Your task to perform on an android device: change notifications settings Image 0: 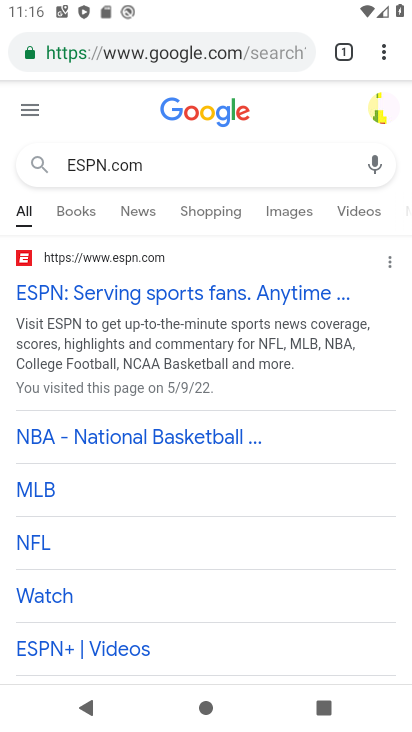
Step 0: press home button
Your task to perform on an android device: change notifications settings Image 1: 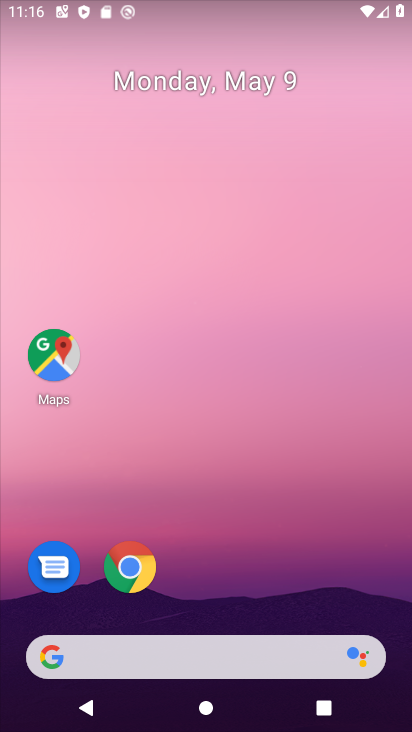
Step 1: drag from (255, 583) to (336, 114)
Your task to perform on an android device: change notifications settings Image 2: 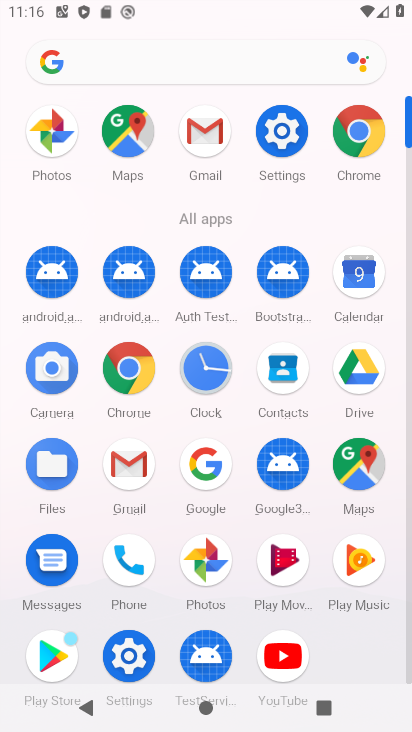
Step 2: click (284, 156)
Your task to perform on an android device: change notifications settings Image 3: 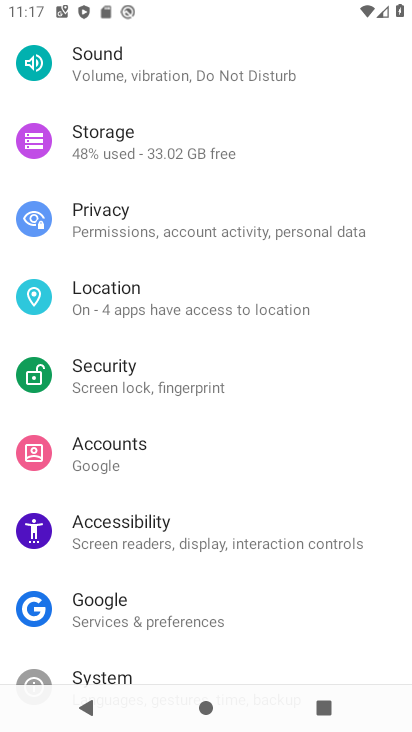
Step 3: drag from (207, 368) to (216, 691)
Your task to perform on an android device: change notifications settings Image 4: 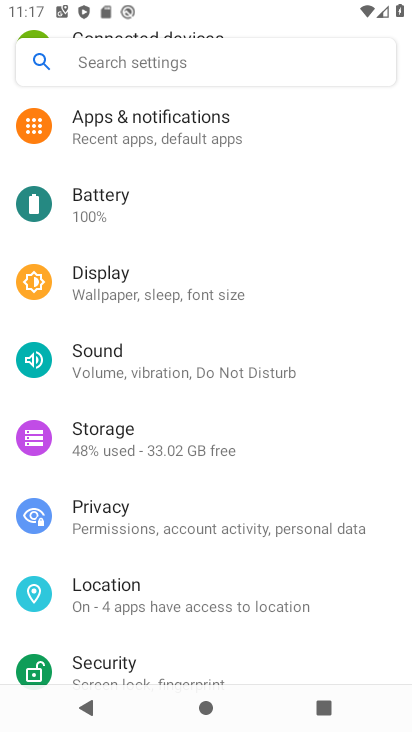
Step 4: drag from (217, 223) to (213, 411)
Your task to perform on an android device: change notifications settings Image 5: 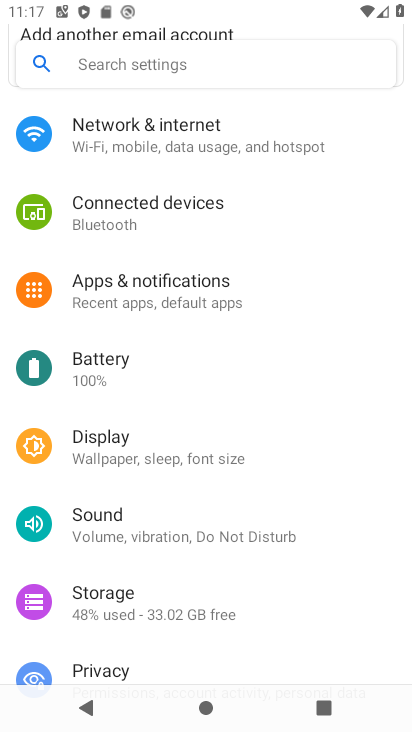
Step 5: click (174, 264)
Your task to perform on an android device: change notifications settings Image 6: 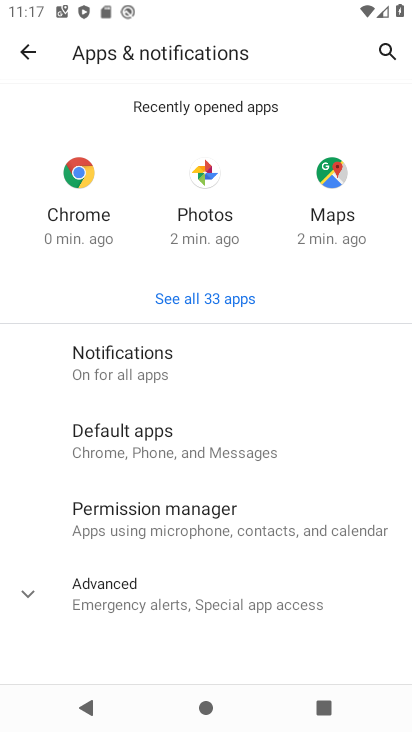
Step 6: click (132, 364)
Your task to perform on an android device: change notifications settings Image 7: 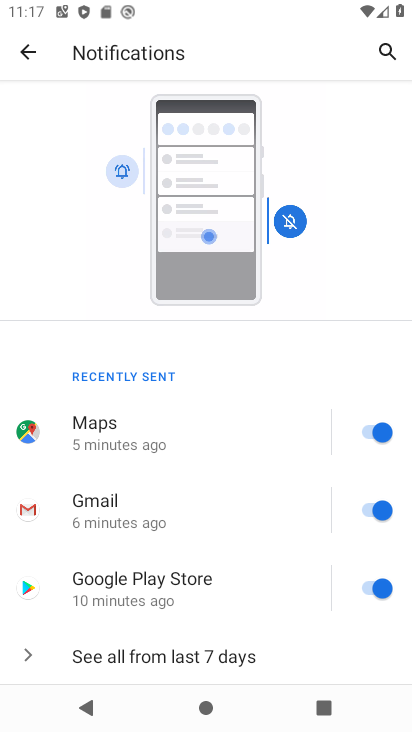
Step 7: click (363, 422)
Your task to perform on an android device: change notifications settings Image 8: 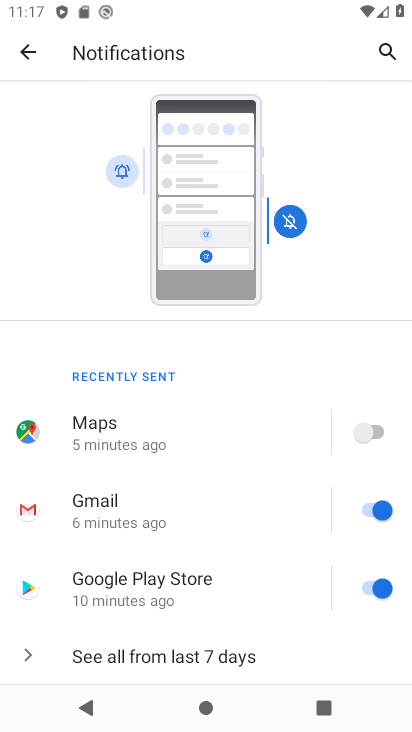
Step 8: click (373, 508)
Your task to perform on an android device: change notifications settings Image 9: 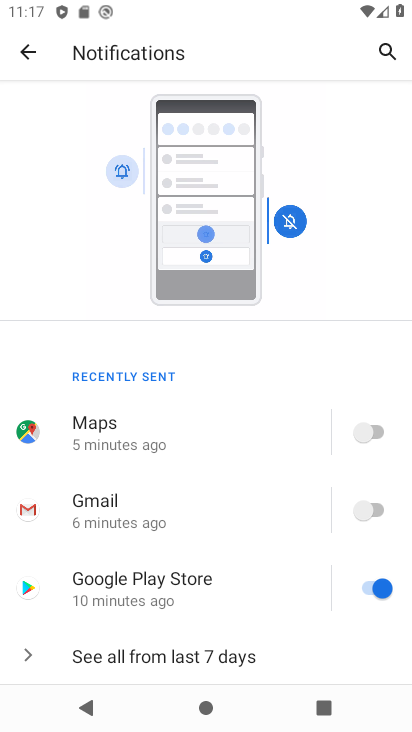
Step 9: click (368, 596)
Your task to perform on an android device: change notifications settings Image 10: 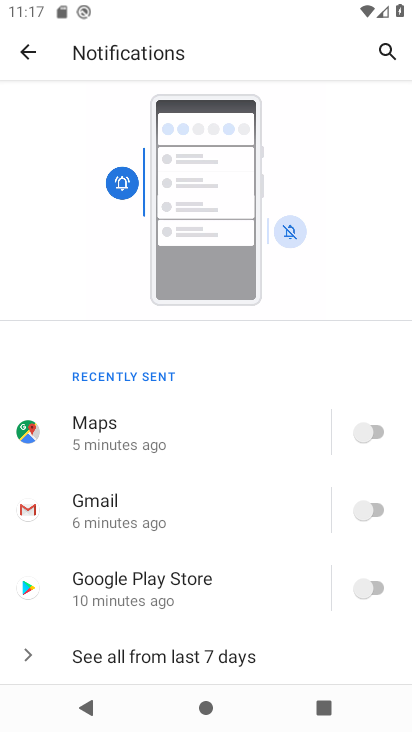
Step 10: drag from (277, 606) to (274, 192)
Your task to perform on an android device: change notifications settings Image 11: 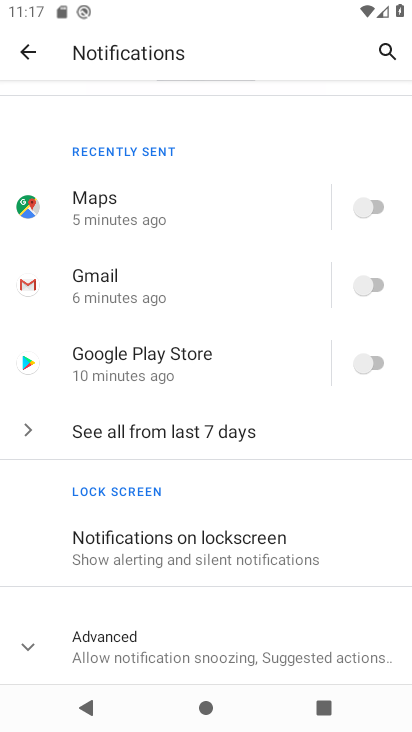
Step 11: click (68, 435)
Your task to perform on an android device: change notifications settings Image 12: 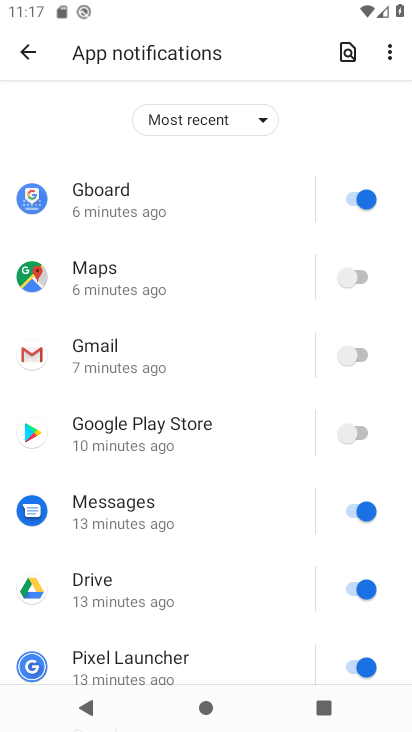
Step 12: click (359, 508)
Your task to perform on an android device: change notifications settings Image 13: 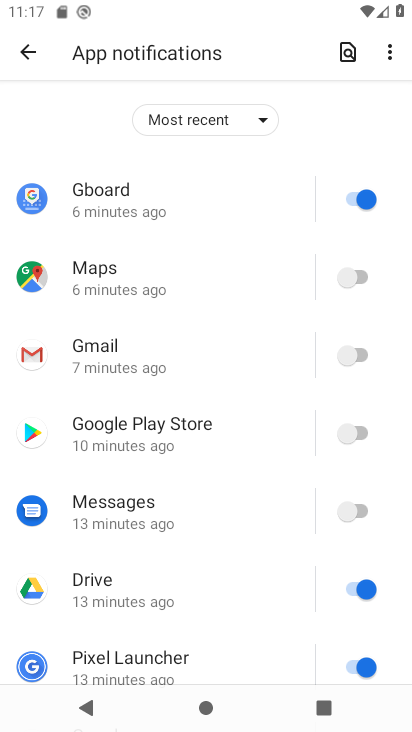
Step 13: click (346, 201)
Your task to perform on an android device: change notifications settings Image 14: 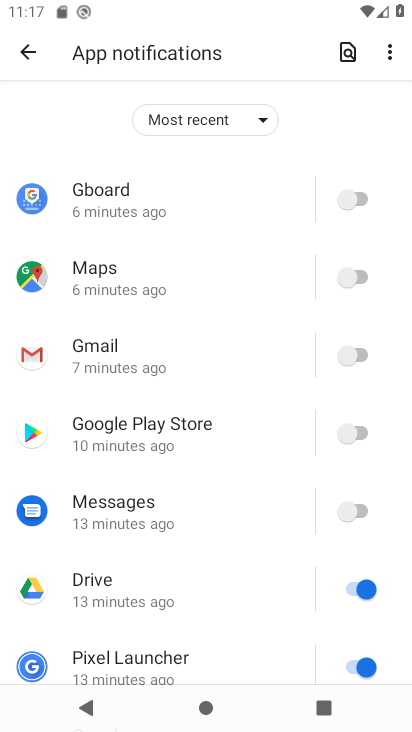
Step 14: click (348, 592)
Your task to perform on an android device: change notifications settings Image 15: 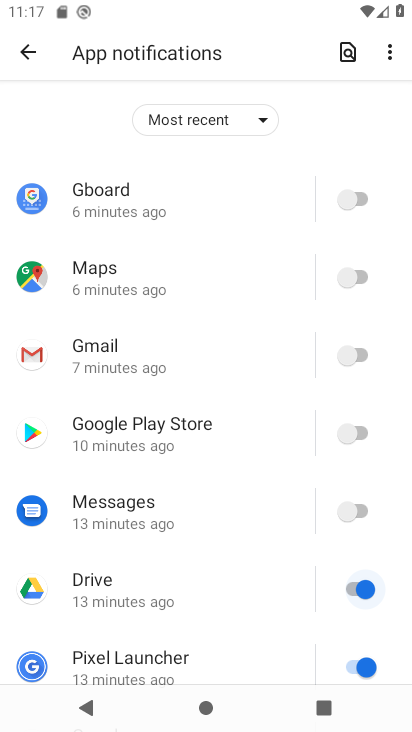
Step 15: drag from (251, 583) to (301, 147)
Your task to perform on an android device: change notifications settings Image 16: 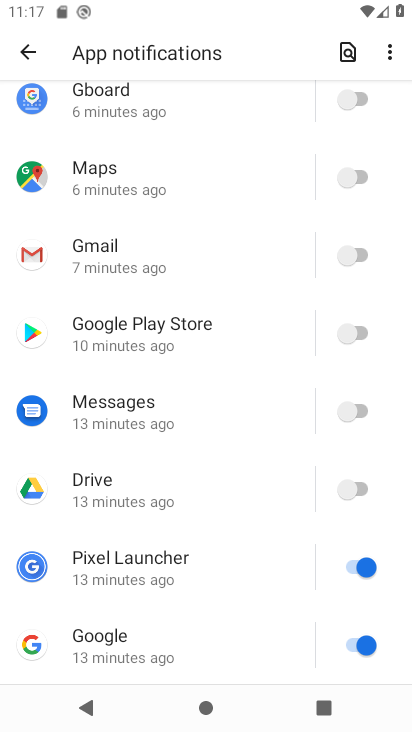
Step 16: click (350, 558)
Your task to perform on an android device: change notifications settings Image 17: 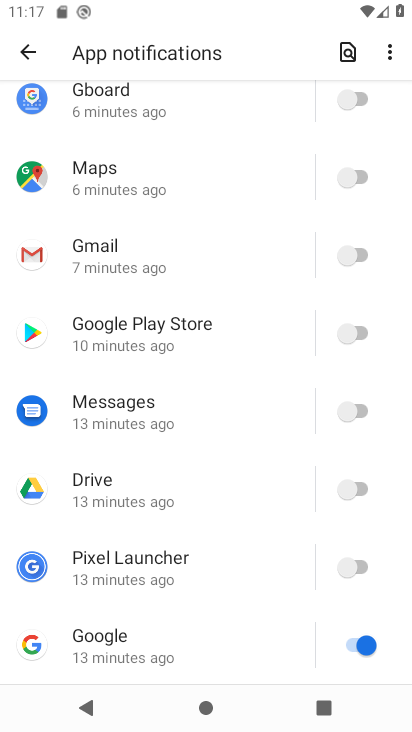
Step 17: click (347, 652)
Your task to perform on an android device: change notifications settings Image 18: 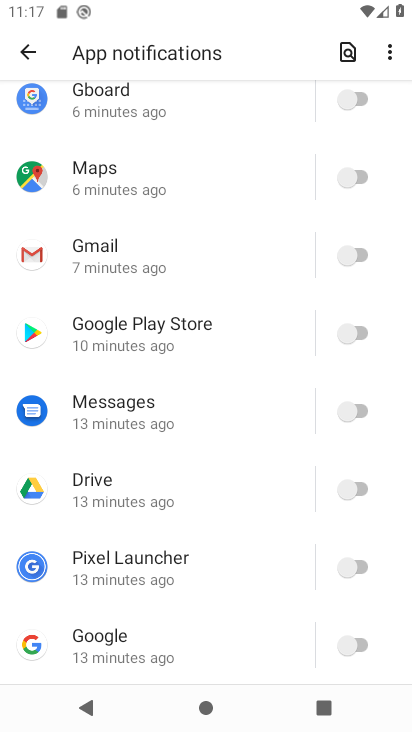
Step 18: task complete